Your task to perform on an android device: Open battery settings Image 0: 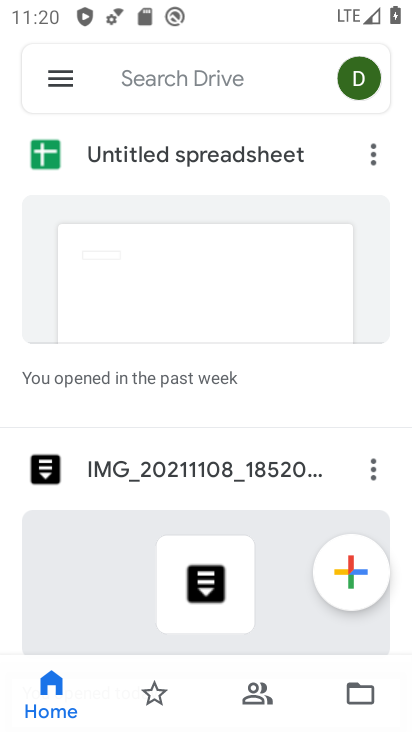
Step 0: press home button
Your task to perform on an android device: Open battery settings Image 1: 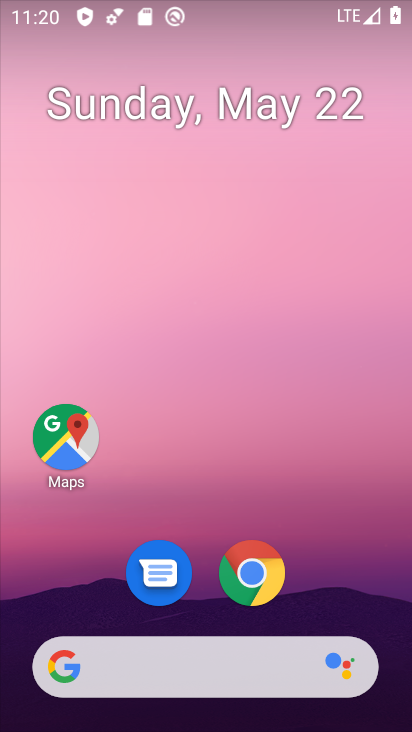
Step 1: drag from (219, 606) to (246, 26)
Your task to perform on an android device: Open battery settings Image 2: 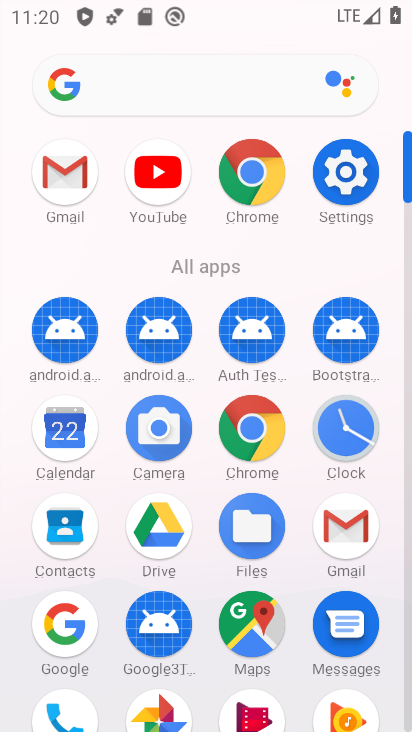
Step 2: click (358, 161)
Your task to perform on an android device: Open battery settings Image 3: 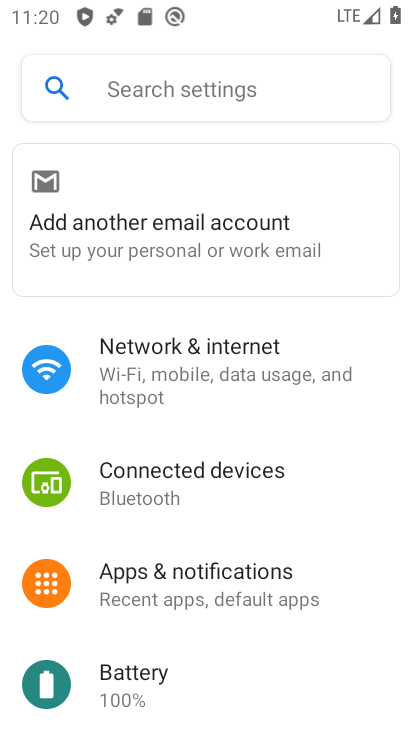
Step 3: click (169, 677)
Your task to perform on an android device: Open battery settings Image 4: 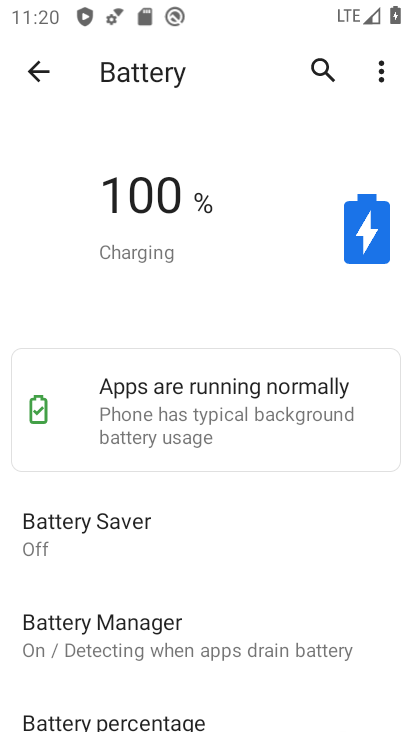
Step 4: task complete